Your task to perform on an android device: turn off picture-in-picture Image 0: 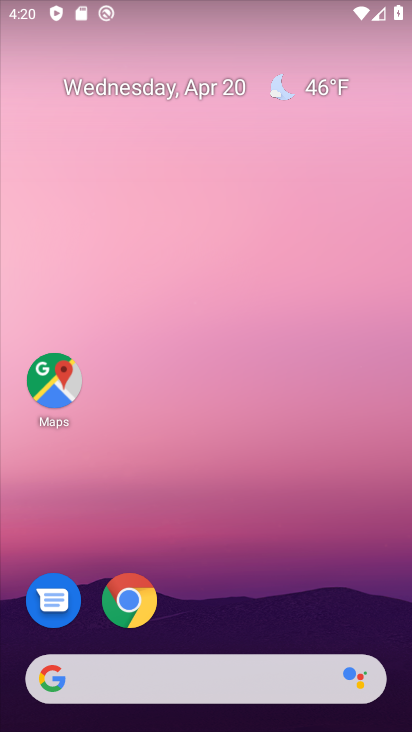
Step 0: click (124, 598)
Your task to perform on an android device: turn off picture-in-picture Image 1: 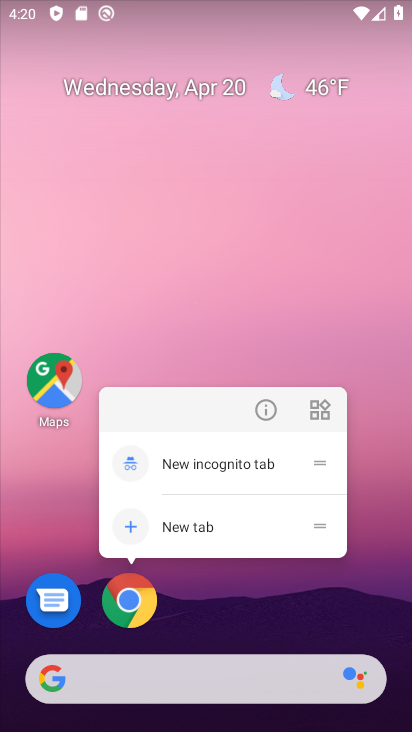
Step 1: click (265, 406)
Your task to perform on an android device: turn off picture-in-picture Image 2: 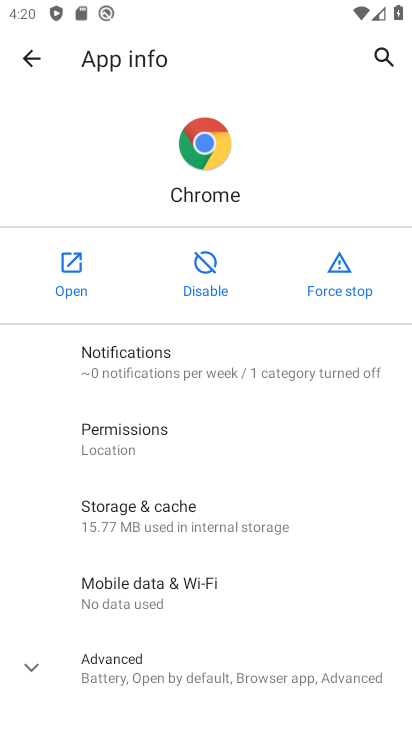
Step 2: click (29, 663)
Your task to perform on an android device: turn off picture-in-picture Image 3: 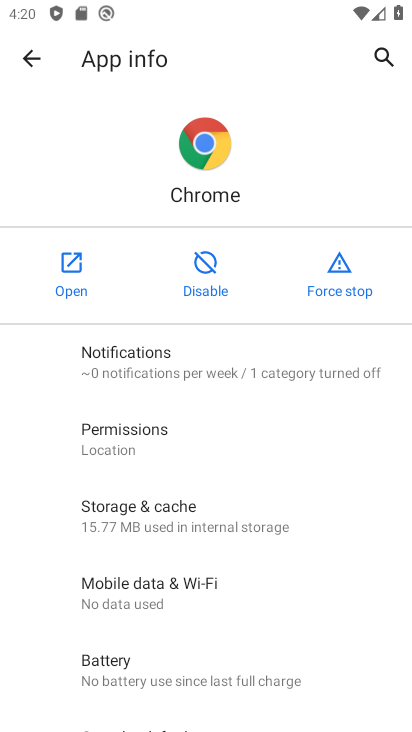
Step 3: drag from (211, 673) to (210, 190)
Your task to perform on an android device: turn off picture-in-picture Image 4: 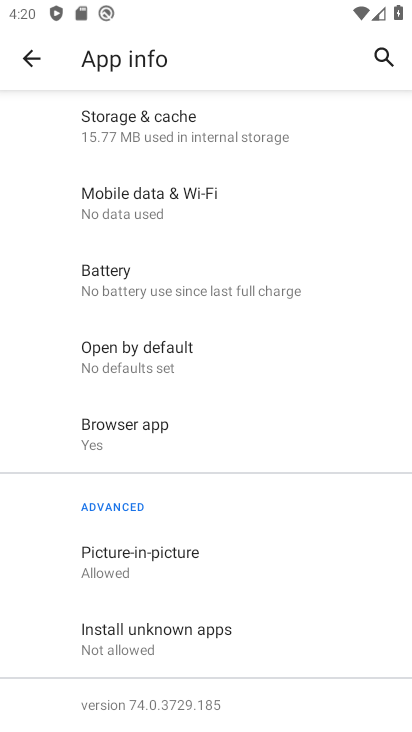
Step 4: click (158, 564)
Your task to perform on an android device: turn off picture-in-picture Image 5: 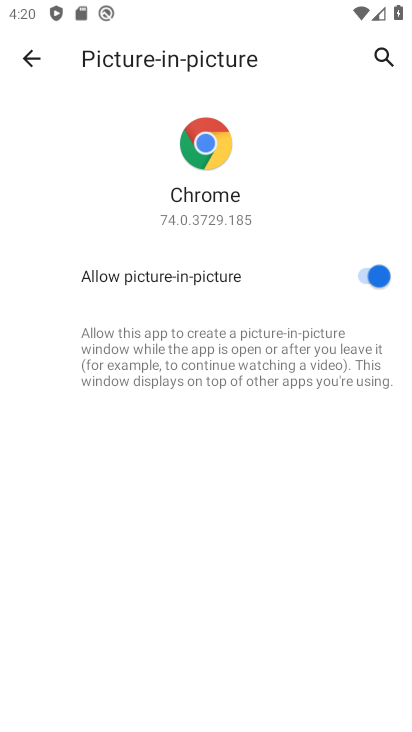
Step 5: click (373, 270)
Your task to perform on an android device: turn off picture-in-picture Image 6: 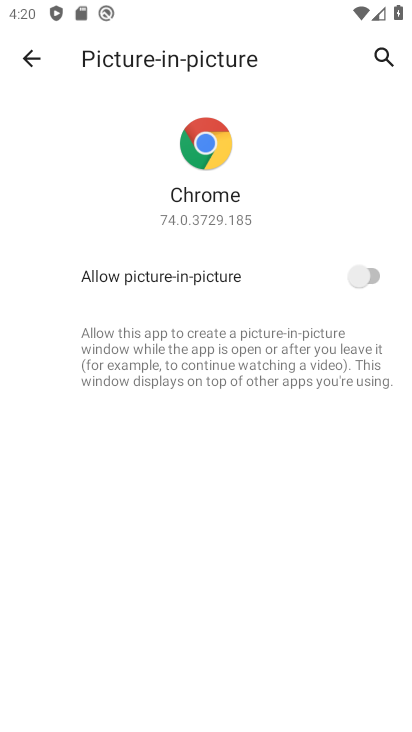
Step 6: task complete